Your task to perform on an android device: What's on my calendar tomorrow? Image 0: 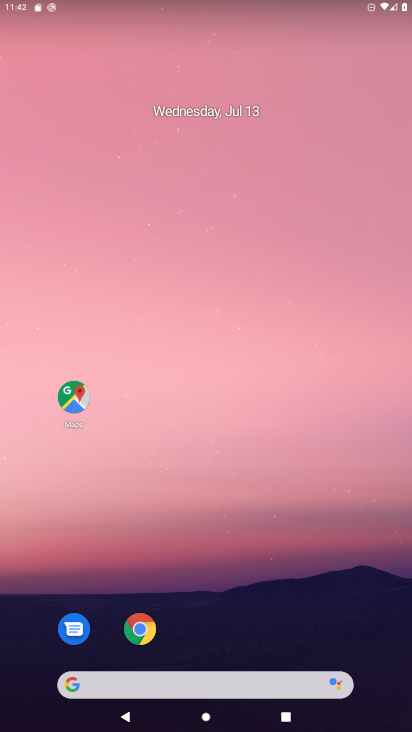
Step 0: drag from (396, 700) to (374, 152)
Your task to perform on an android device: What's on my calendar tomorrow? Image 1: 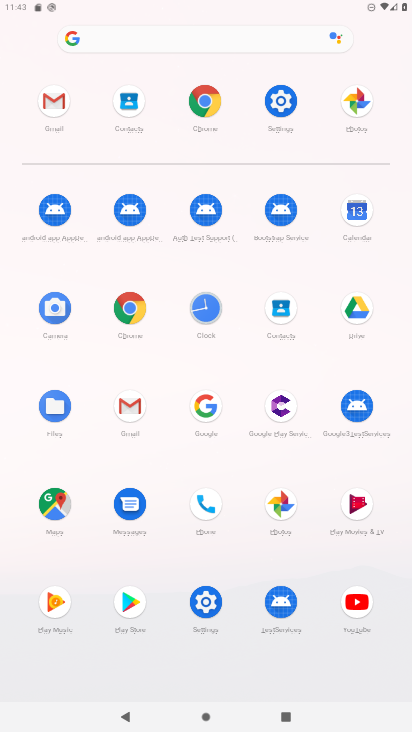
Step 1: click (361, 216)
Your task to perform on an android device: What's on my calendar tomorrow? Image 2: 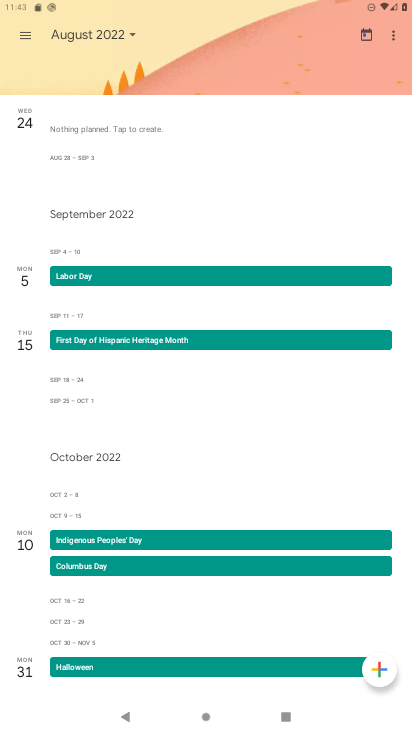
Step 2: click (126, 31)
Your task to perform on an android device: What's on my calendar tomorrow? Image 3: 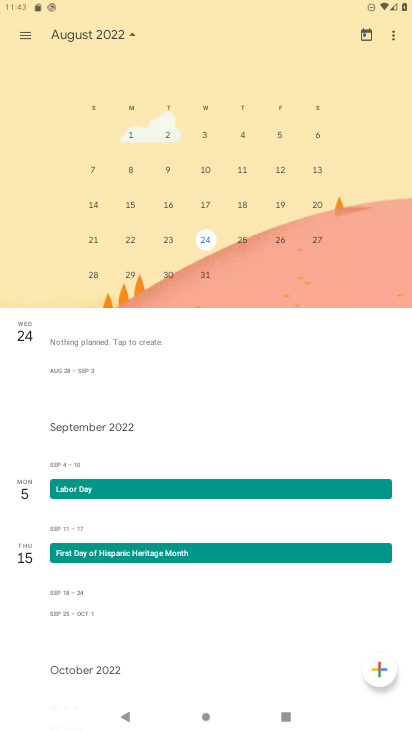
Step 3: drag from (87, 169) to (400, 159)
Your task to perform on an android device: What's on my calendar tomorrow? Image 4: 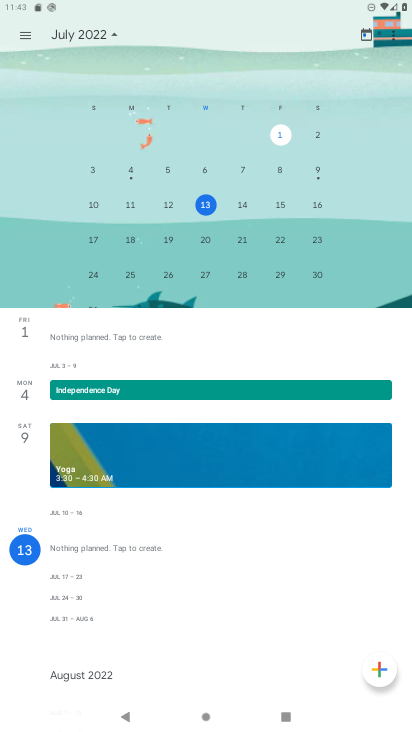
Step 4: click (244, 201)
Your task to perform on an android device: What's on my calendar tomorrow? Image 5: 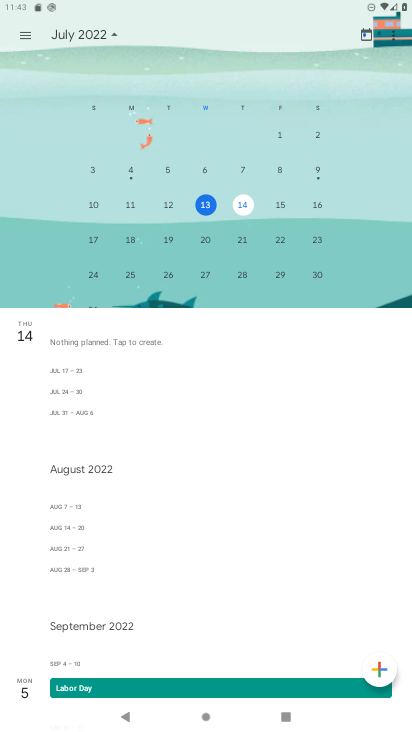
Step 5: task complete